Your task to perform on an android device: toggle translation in the chrome app Image 0: 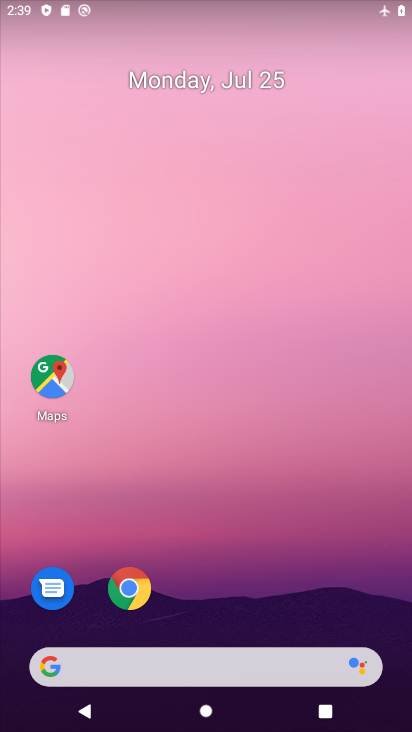
Step 0: drag from (238, 730) to (236, 355)
Your task to perform on an android device: toggle translation in the chrome app Image 1: 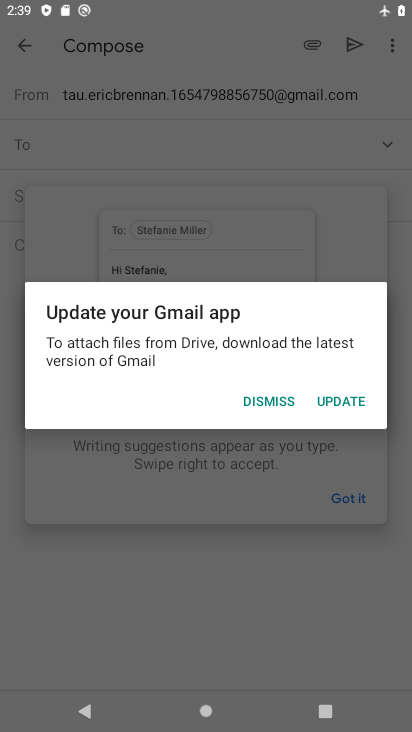
Step 1: press home button
Your task to perform on an android device: toggle translation in the chrome app Image 2: 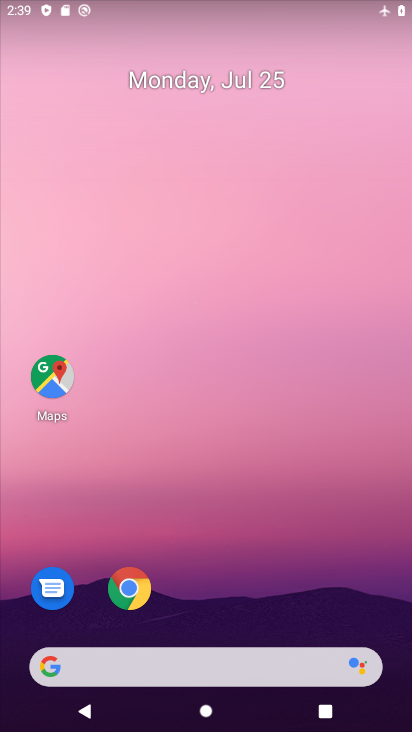
Step 2: drag from (252, 696) to (240, 65)
Your task to perform on an android device: toggle translation in the chrome app Image 3: 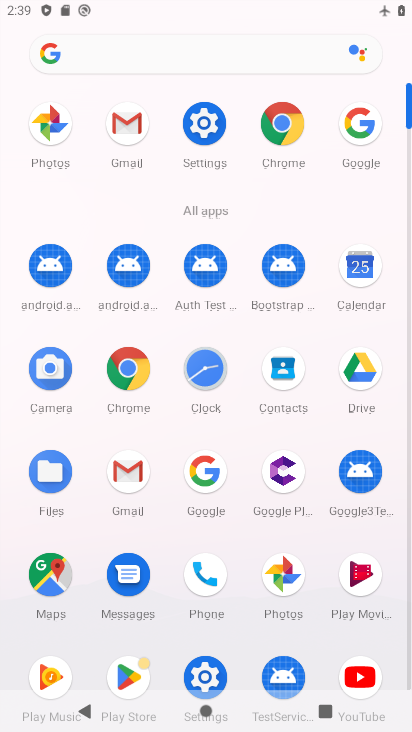
Step 3: click (128, 363)
Your task to perform on an android device: toggle translation in the chrome app Image 4: 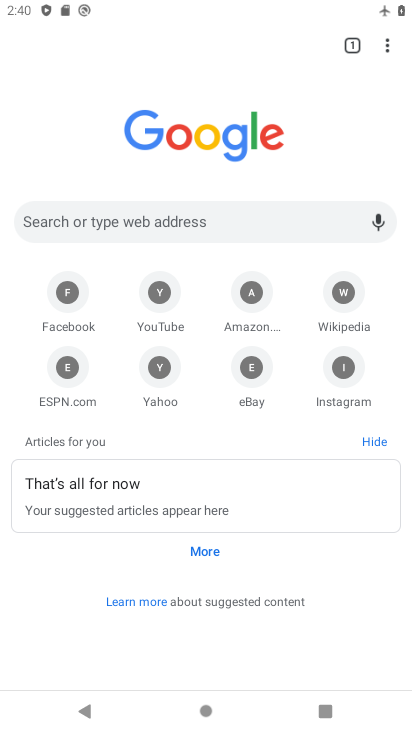
Step 4: click (390, 47)
Your task to perform on an android device: toggle translation in the chrome app Image 5: 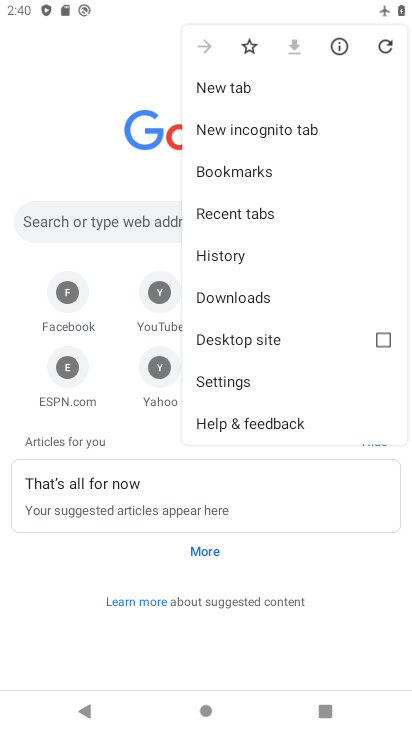
Step 5: click (226, 380)
Your task to perform on an android device: toggle translation in the chrome app Image 6: 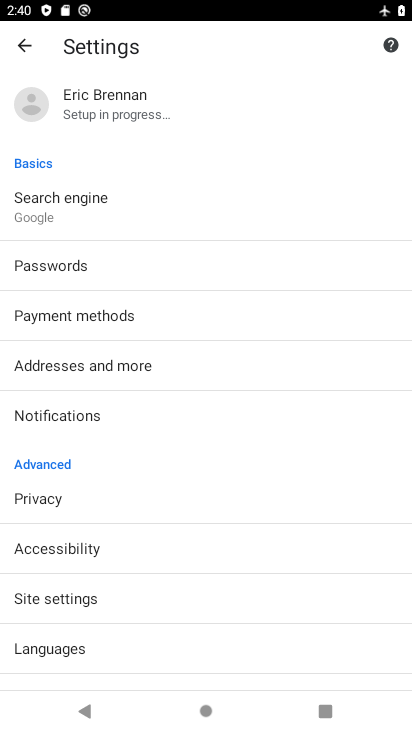
Step 6: click (55, 649)
Your task to perform on an android device: toggle translation in the chrome app Image 7: 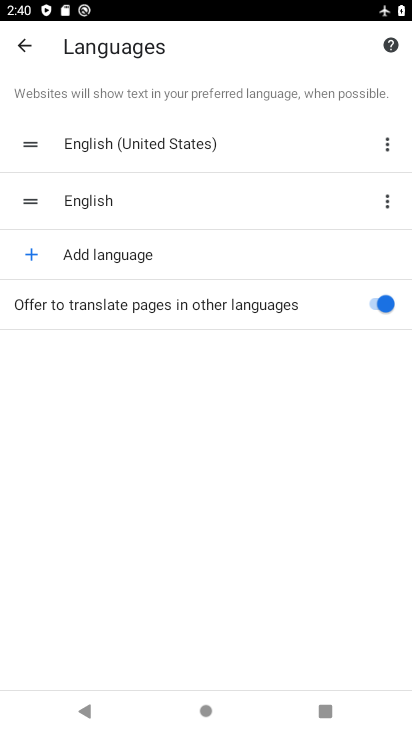
Step 7: click (379, 305)
Your task to perform on an android device: toggle translation in the chrome app Image 8: 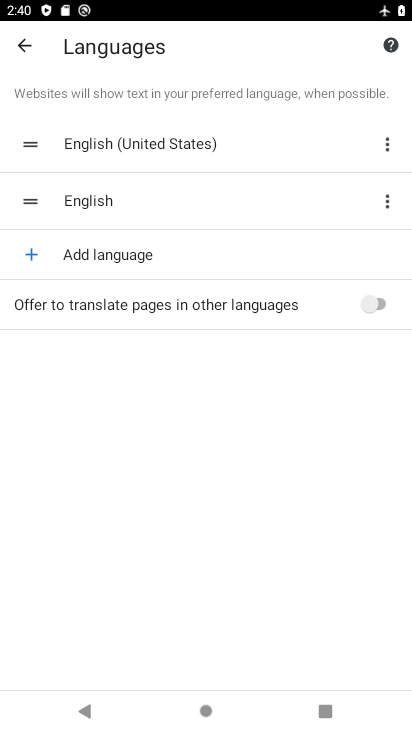
Step 8: task complete